Your task to perform on an android device: Check the news Image 0: 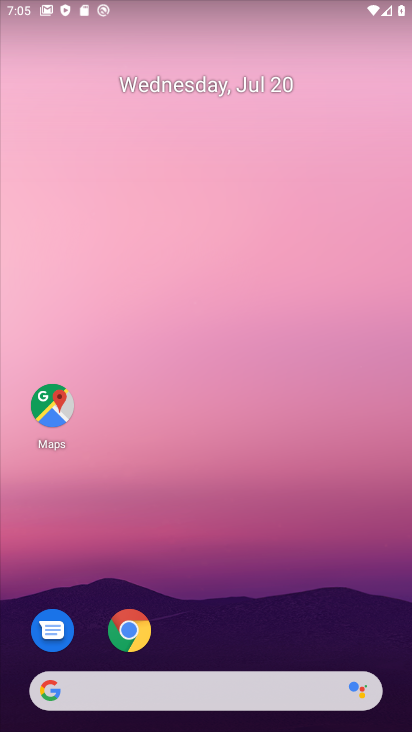
Step 0: click (131, 622)
Your task to perform on an android device: Check the news Image 1: 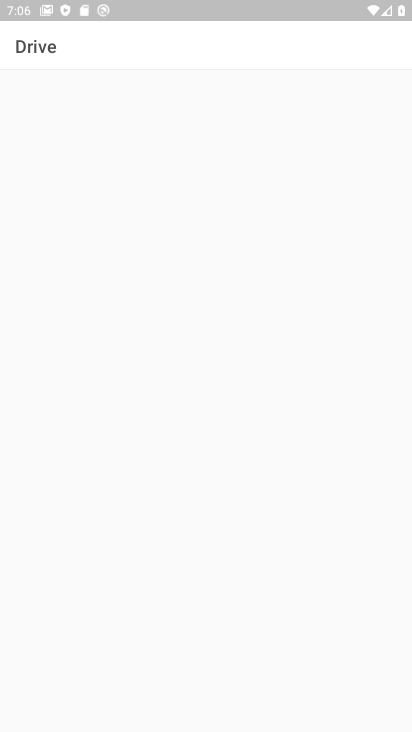
Step 1: click (137, 630)
Your task to perform on an android device: Check the news Image 2: 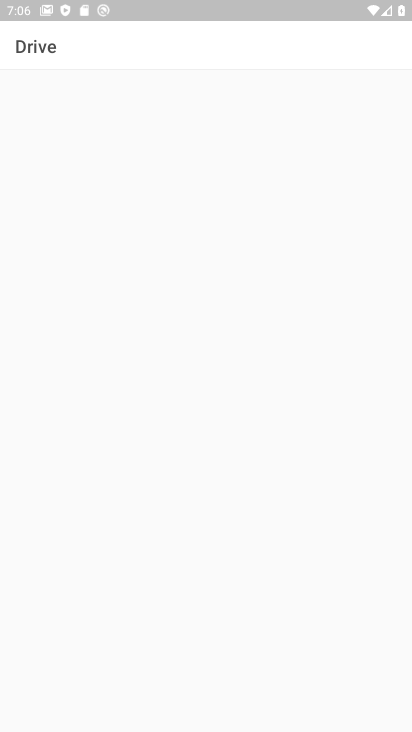
Step 2: click (137, 630)
Your task to perform on an android device: Check the news Image 3: 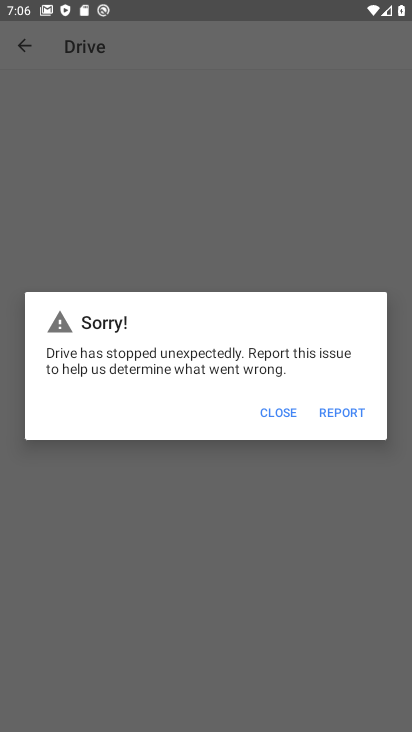
Step 3: press home button
Your task to perform on an android device: Check the news Image 4: 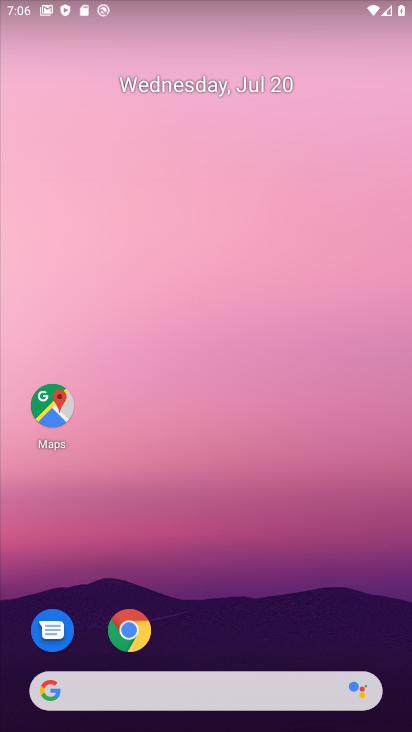
Step 4: drag from (273, 621) to (258, 150)
Your task to perform on an android device: Check the news Image 5: 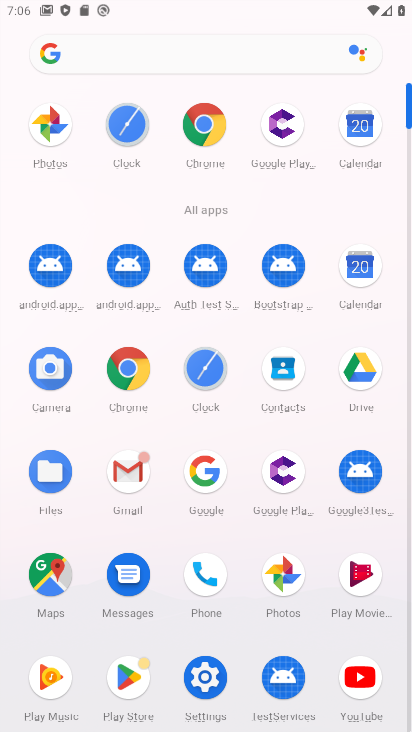
Step 5: drag from (263, 588) to (263, 276)
Your task to perform on an android device: Check the news Image 6: 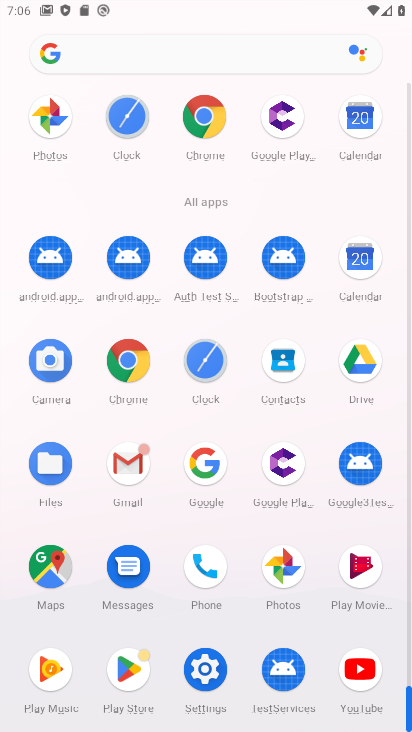
Step 6: click (201, 458)
Your task to perform on an android device: Check the news Image 7: 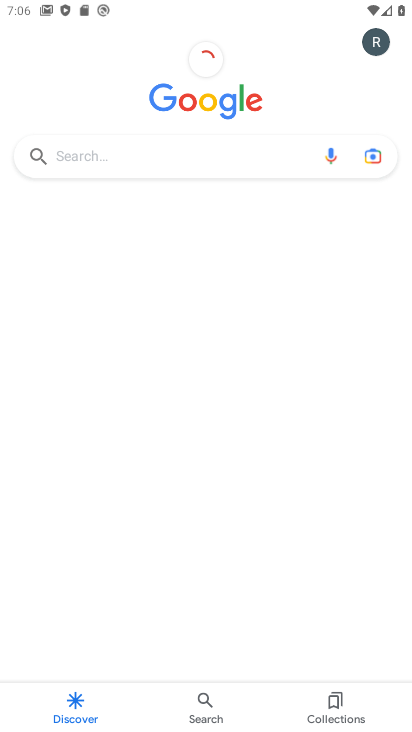
Step 7: click (108, 157)
Your task to perform on an android device: Check the news Image 8: 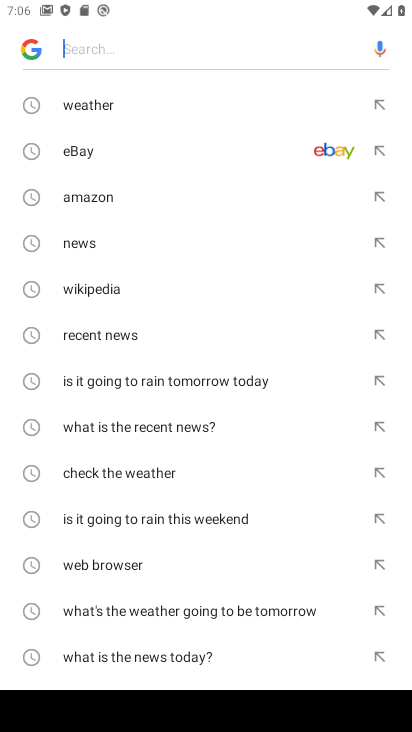
Step 8: type "news"
Your task to perform on an android device: Check the news Image 9: 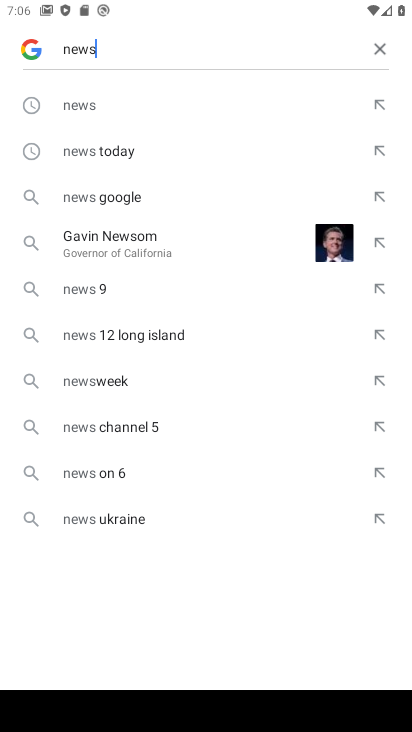
Step 9: click (85, 89)
Your task to perform on an android device: Check the news Image 10: 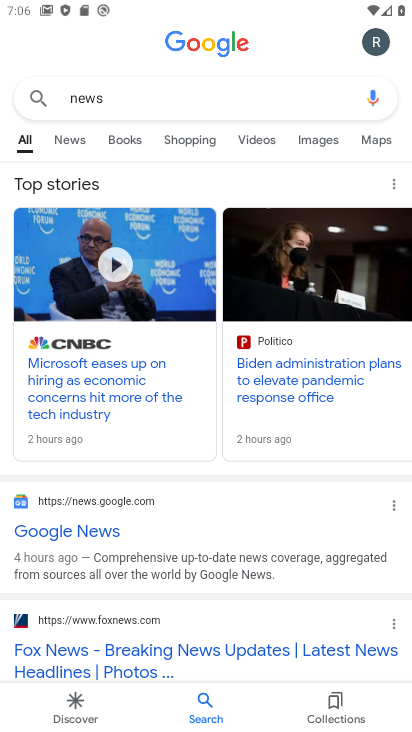
Step 10: task complete